Your task to perform on an android device: show emergency info Image 0: 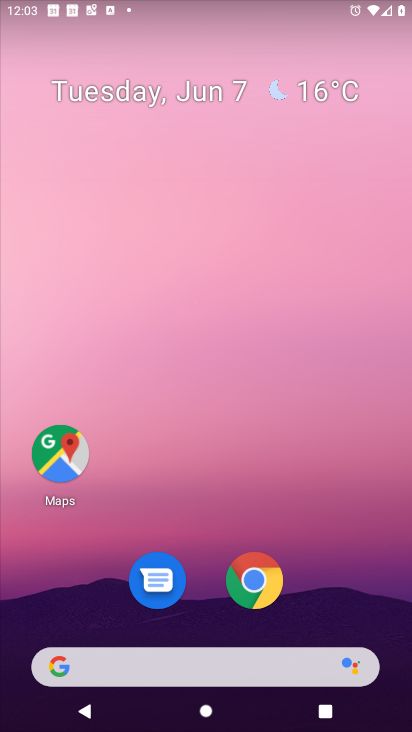
Step 0: drag from (364, 597) to (274, 0)
Your task to perform on an android device: show emergency info Image 1: 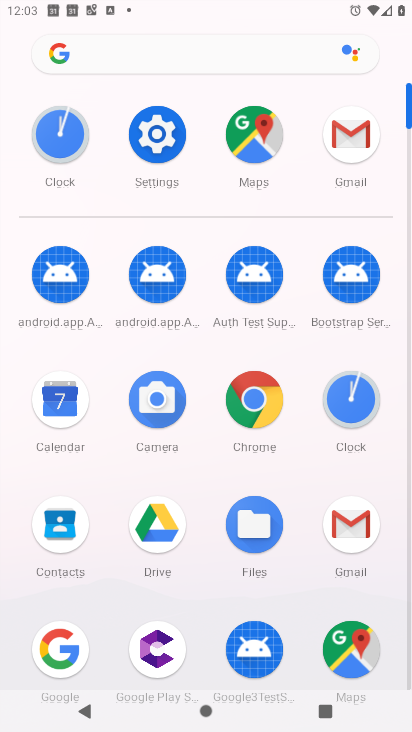
Step 1: click (176, 149)
Your task to perform on an android device: show emergency info Image 2: 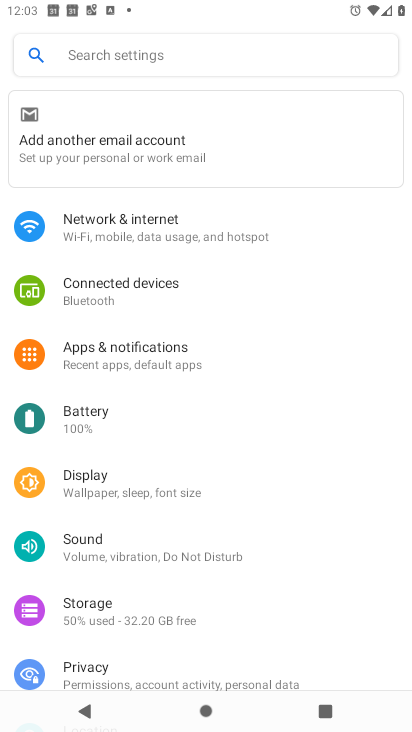
Step 2: drag from (229, 645) to (354, 94)
Your task to perform on an android device: show emergency info Image 3: 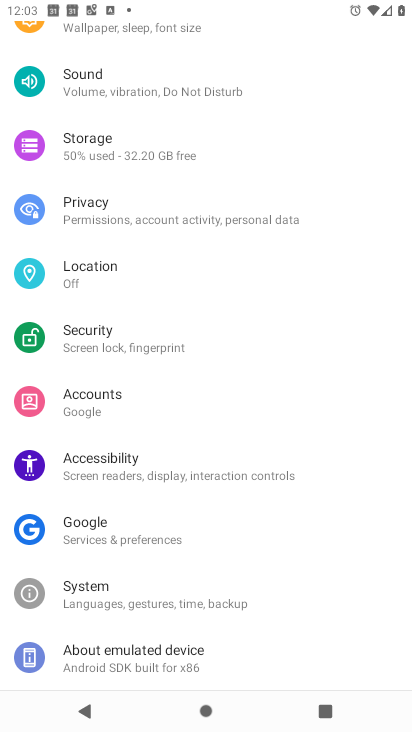
Step 3: drag from (237, 602) to (322, 125)
Your task to perform on an android device: show emergency info Image 4: 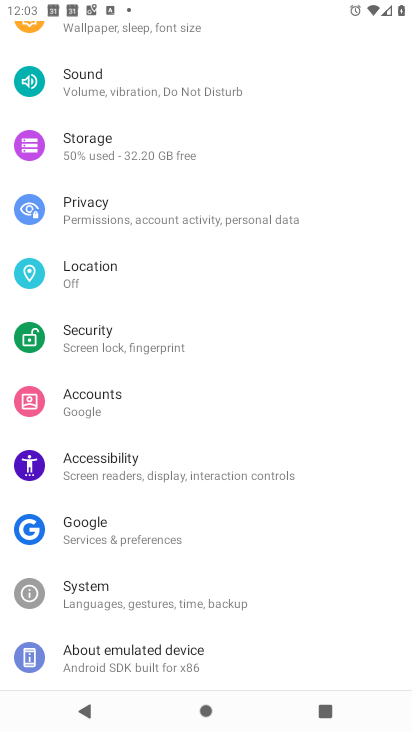
Step 4: click (172, 658)
Your task to perform on an android device: show emergency info Image 5: 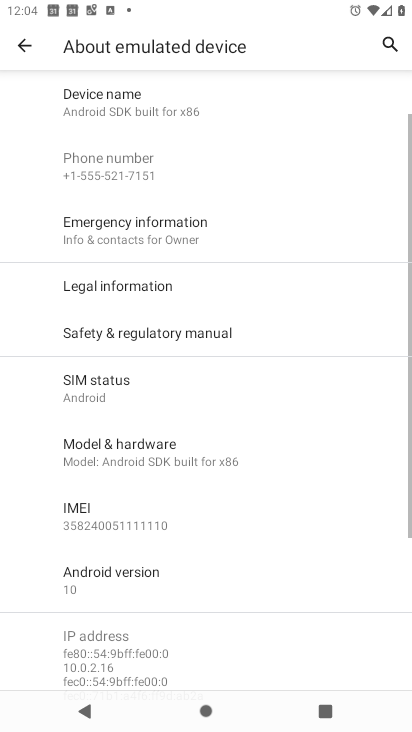
Step 5: drag from (191, 614) to (305, 100)
Your task to perform on an android device: show emergency info Image 6: 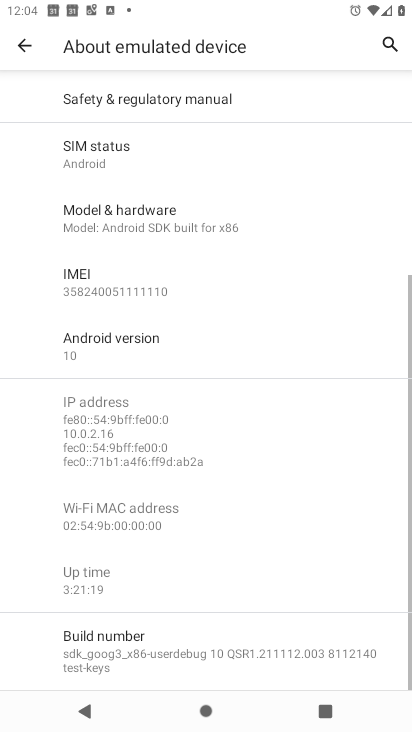
Step 6: drag from (212, 244) to (242, 663)
Your task to perform on an android device: show emergency info Image 7: 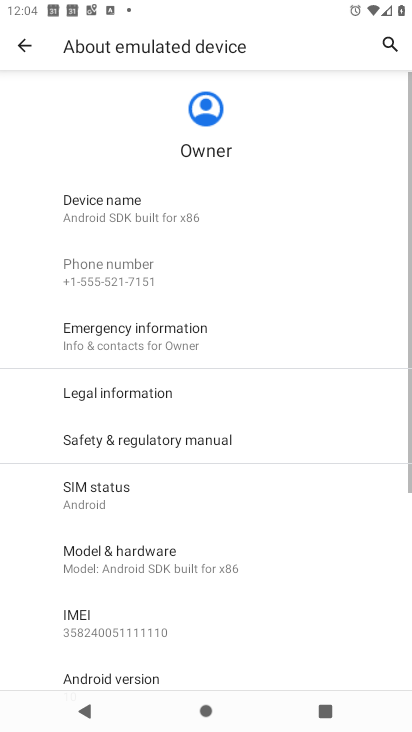
Step 7: click (189, 337)
Your task to perform on an android device: show emergency info Image 8: 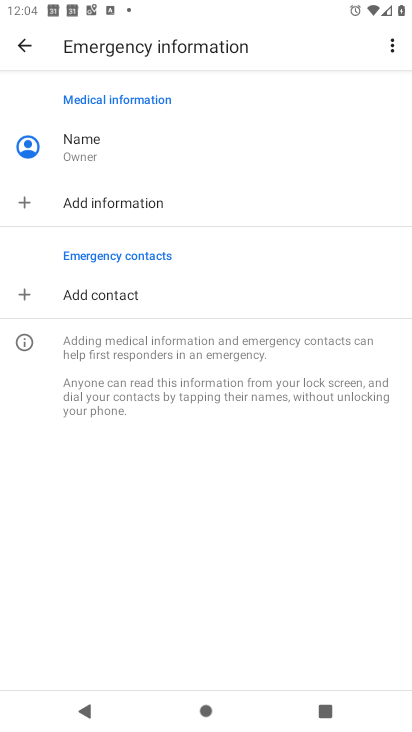
Step 8: task complete